Your task to perform on an android device: open a bookmark in the chrome app Image 0: 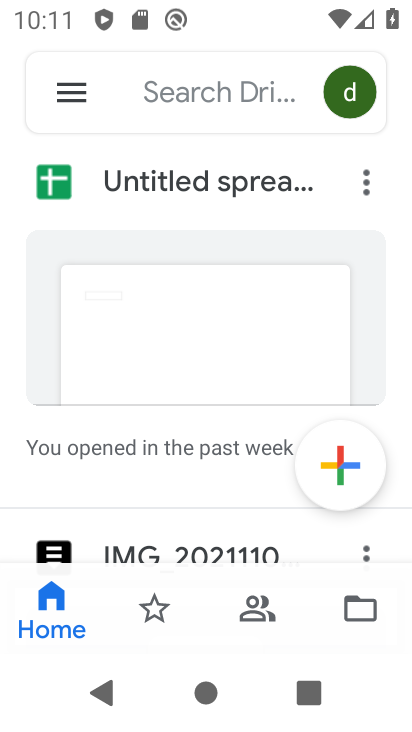
Step 0: press home button
Your task to perform on an android device: open a bookmark in the chrome app Image 1: 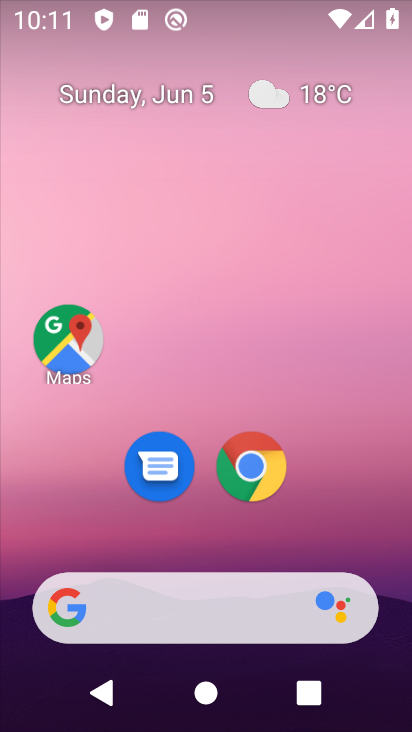
Step 1: click (251, 465)
Your task to perform on an android device: open a bookmark in the chrome app Image 2: 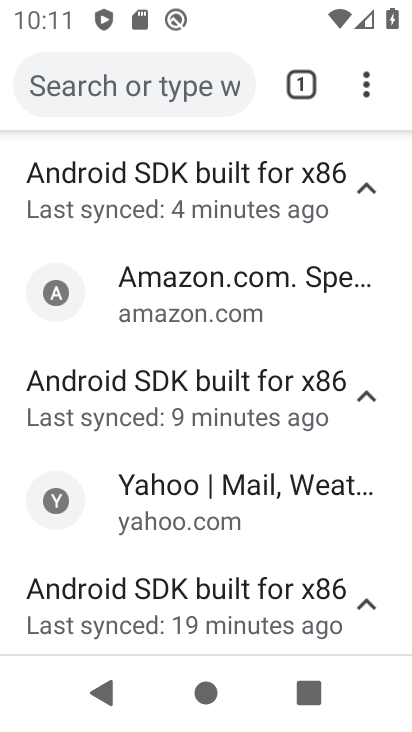
Step 2: click (368, 81)
Your task to perform on an android device: open a bookmark in the chrome app Image 3: 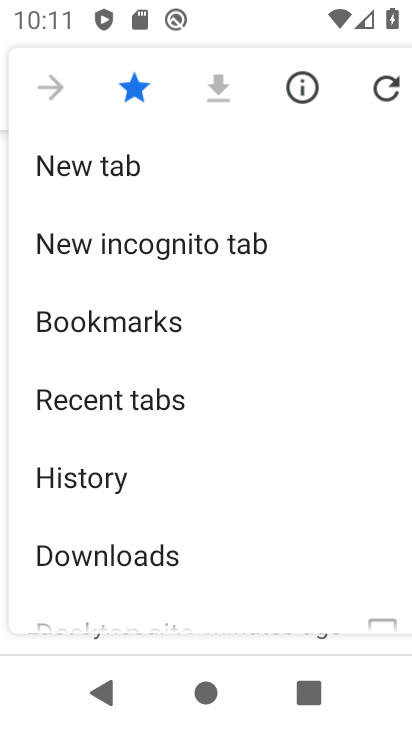
Step 3: click (164, 322)
Your task to perform on an android device: open a bookmark in the chrome app Image 4: 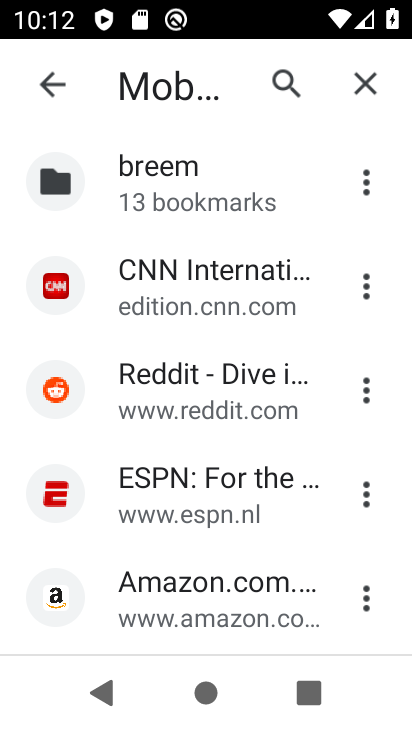
Step 4: task complete